Your task to perform on an android device: turn off picture-in-picture Image 0: 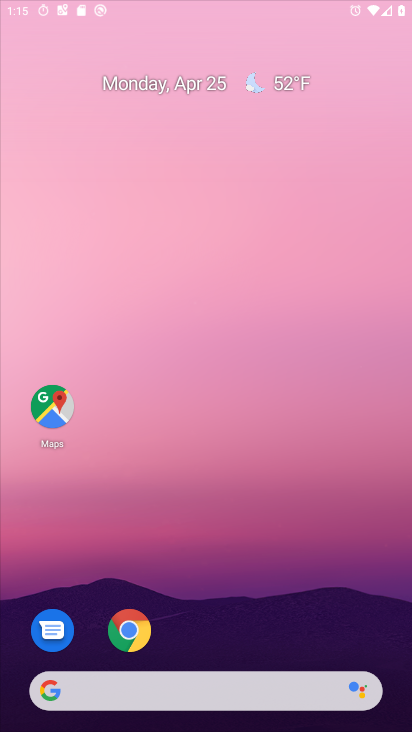
Step 0: click (245, 61)
Your task to perform on an android device: turn off picture-in-picture Image 1: 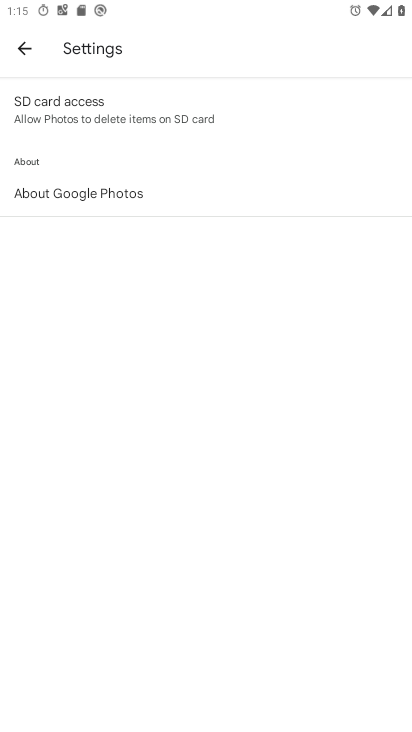
Step 1: click (287, 485)
Your task to perform on an android device: turn off picture-in-picture Image 2: 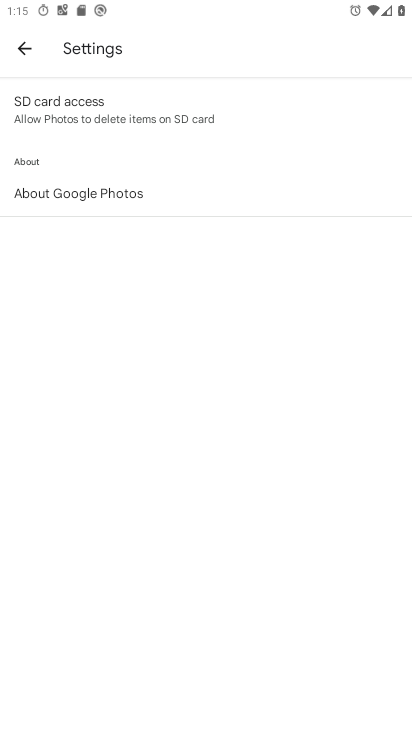
Step 2: press home button
Your task to perform on an android device: turn off picture-in-picture Image 3: 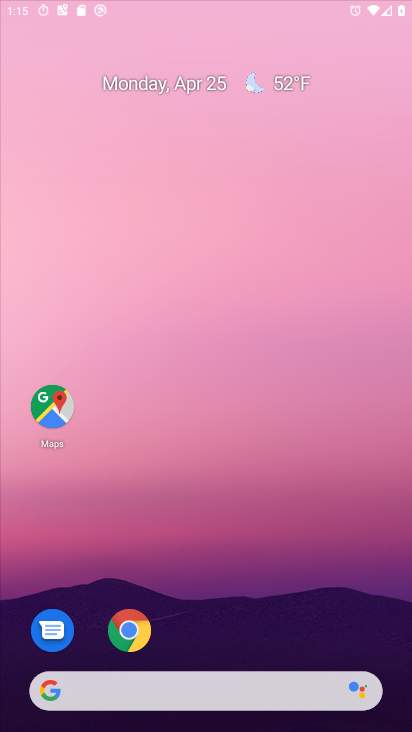
Step 3: drag from (157, 533) to (210, 161)
Your task to perform on an android device: turn off picture-in-picture Image 4: 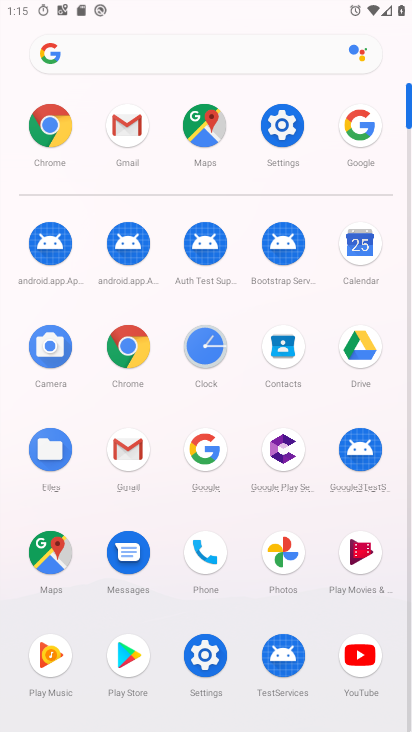
Step 4: click (280, 123)
Your task to perform on an android device: turn off picture-in-picture Image 5: 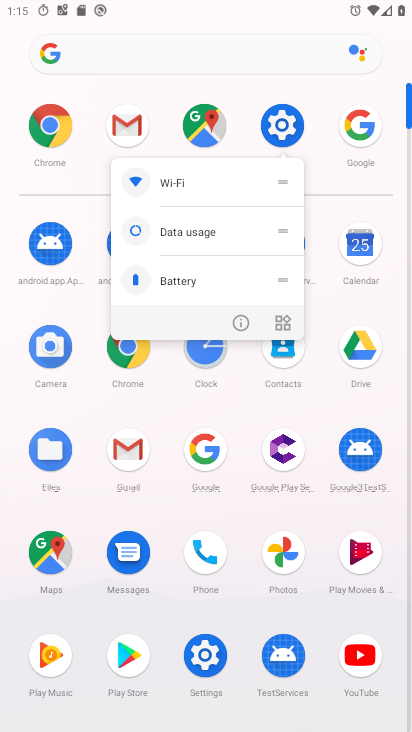
Step 5: click (235, 320)
Your task to perform on an android device: turn off picture-in-picture Image 6: 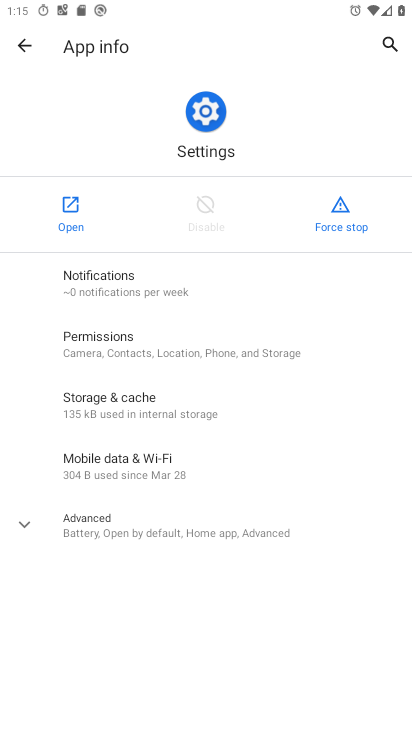
Step 6: click (72, 220)
Your task to perform on an android device: turn off picture-in-picture Image 7: 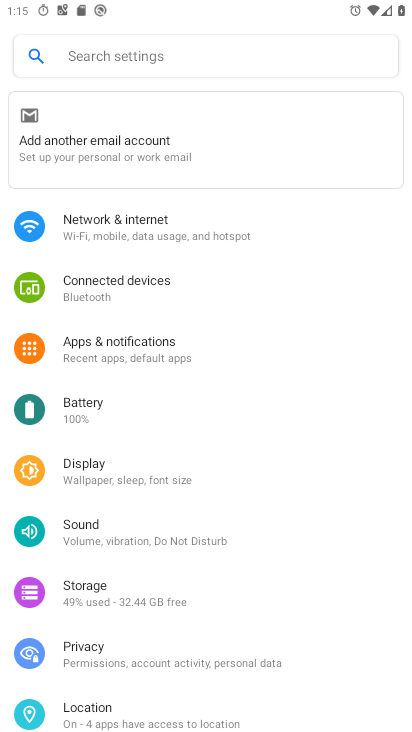
Step 7: click (172, 355)
Your task to perform on an android device: turn off picture-in-picture Image 8: 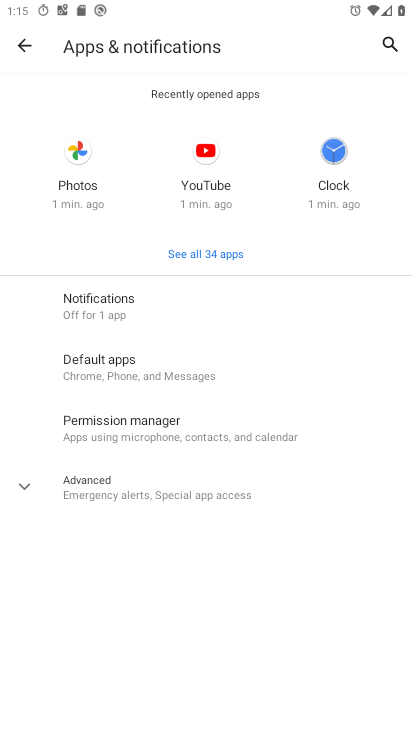
Step 8: click (165, 476)
Your task to perform on an android device: turn off picture-in-picture Image 9: 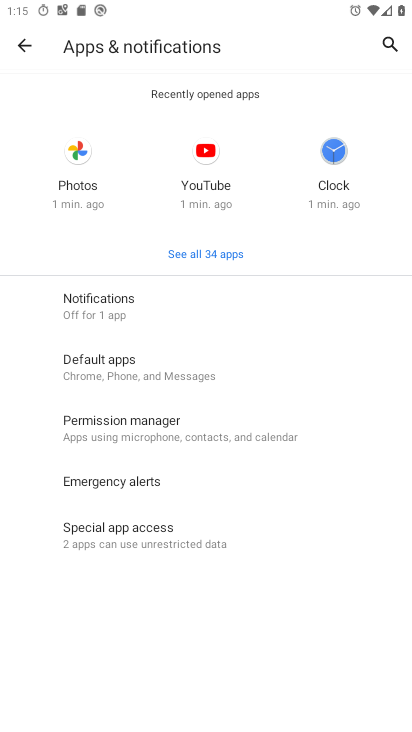
Step 9: click (188, 556)
Your task to perform on an android device: turn off picture-in-picture Image 10: 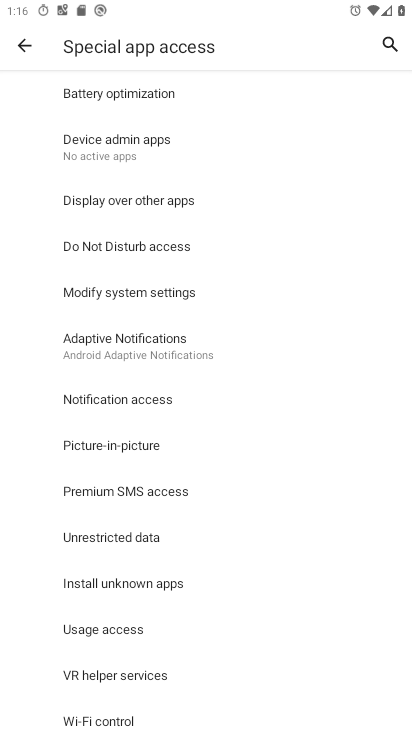
Step 10: drag from (162, 673) to (186, 231)
Your task to perform on an android device: turn off picture-in-picture Image 11: 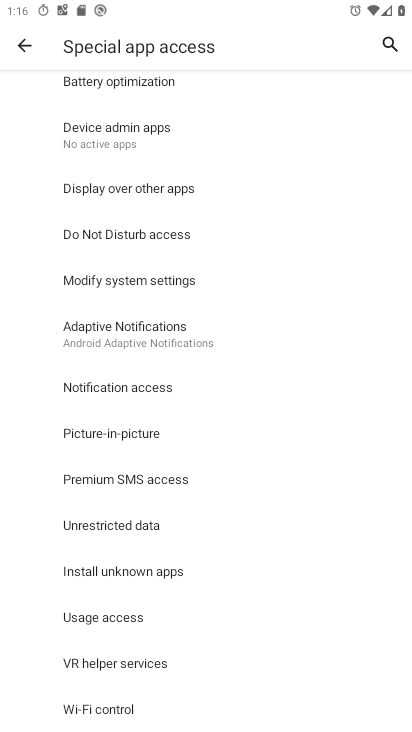
Step 11: click (139, 436)
Your task to perform on an android device: turn off picture-in-picture Image 12: 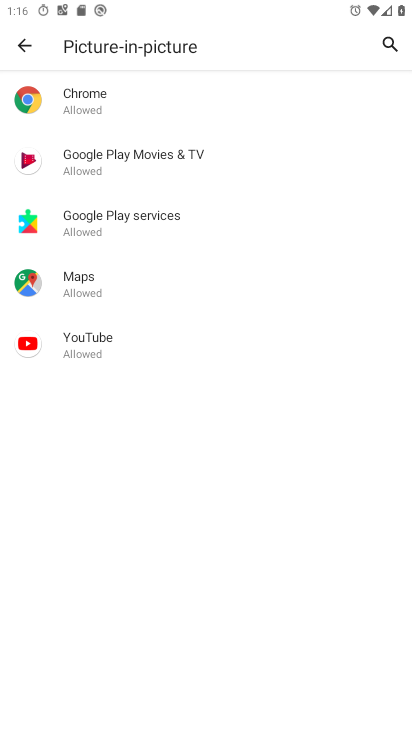
Step 12: click (254, 108)
Your task to perform on an android device: turn off picture-in-picture Image 13: 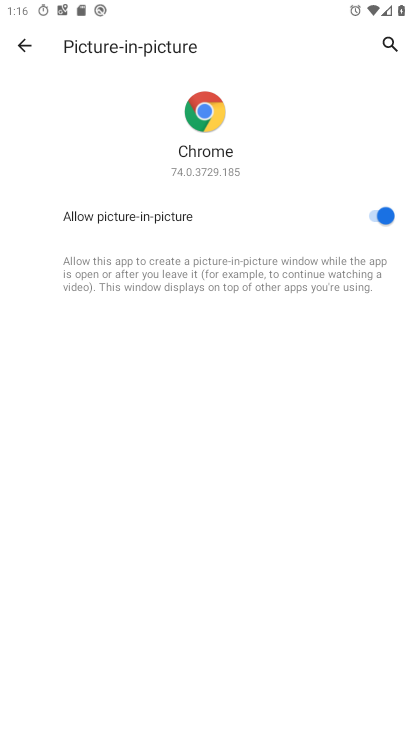
Step 13: click (373, 209)
Your task to perform on an android device: turn off picture-in-picture Image 14: 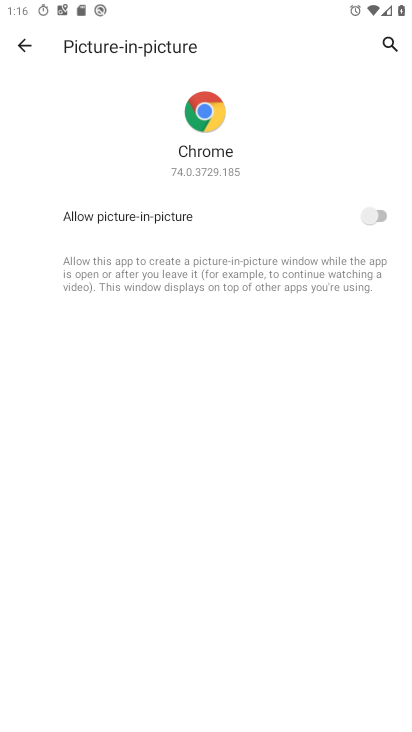
Step 14: task complete